Your task to perform on an android device: Open Maps and search for coffee Image 0: 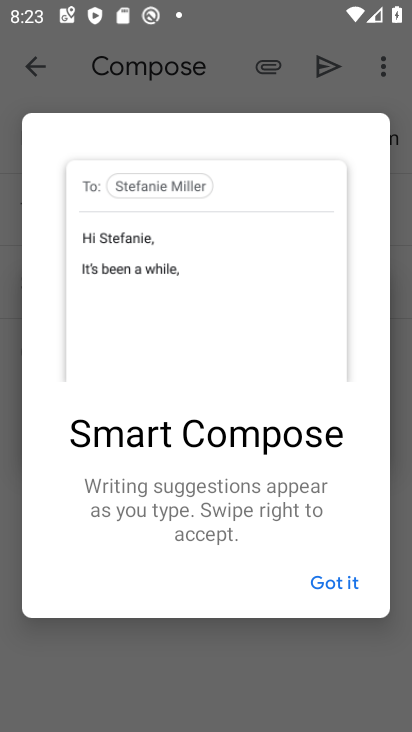
Step 0: press home button
Your task to perform on an android device: Open Maps and search for coffee Image 1: 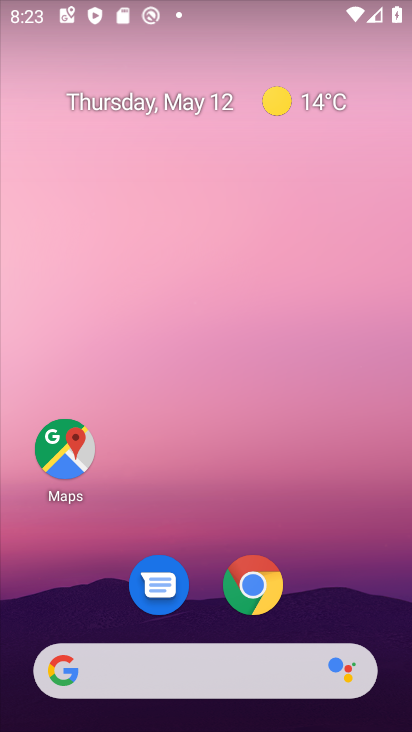
Step 1: click (64, 440)
Your task to perform on an android device: Open Maps and search for coffee Image 2: 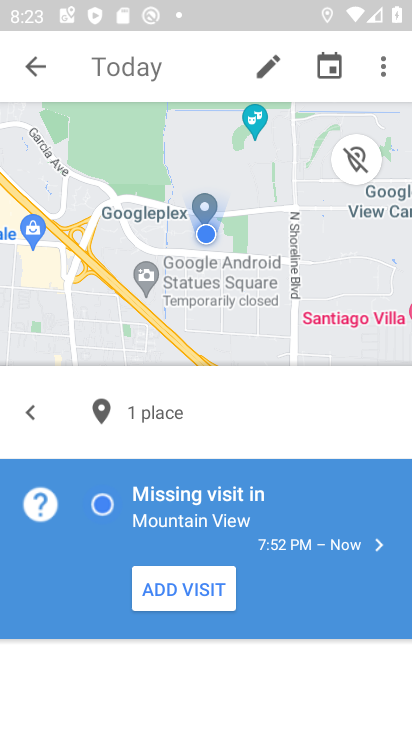
Step 2: click (157, 60)
Your task to perform on an android device: Open Maps and search for coffee Image 3: 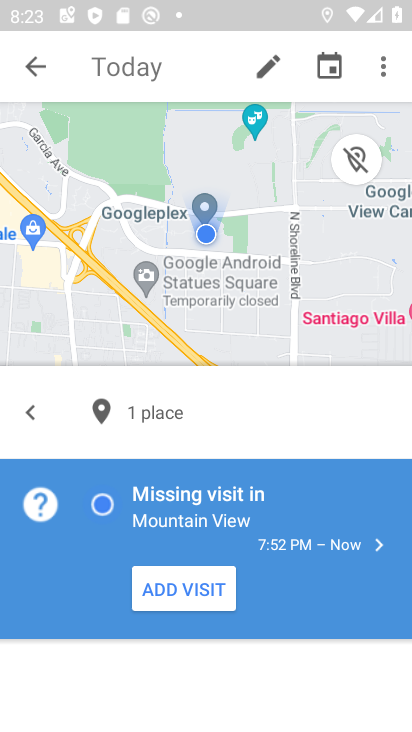
Step 3: click (33, 58)
Your task to perform on an android device: Open Maps and search for coffee Image 4: 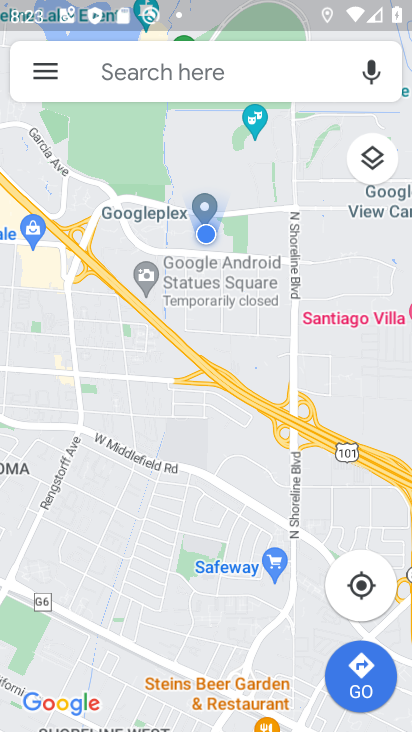
Step 4: click (119, 70)
Your task to perform on an android device: Open Maps and search for coffee Image 5: 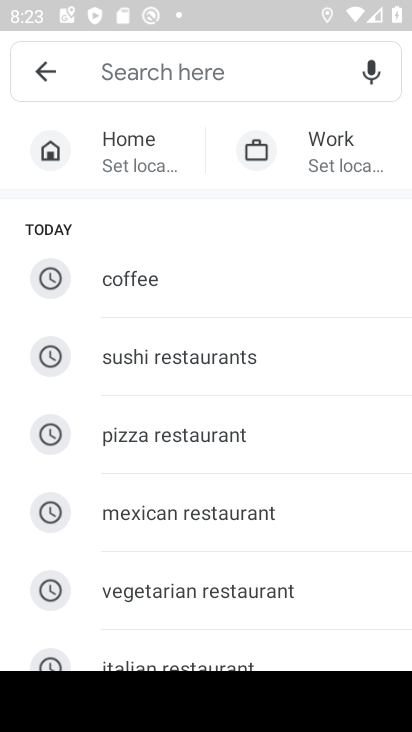
Step 5: click (143, 277)
Your task to perform on an android device: Open Maps and search for coffee Image 6: 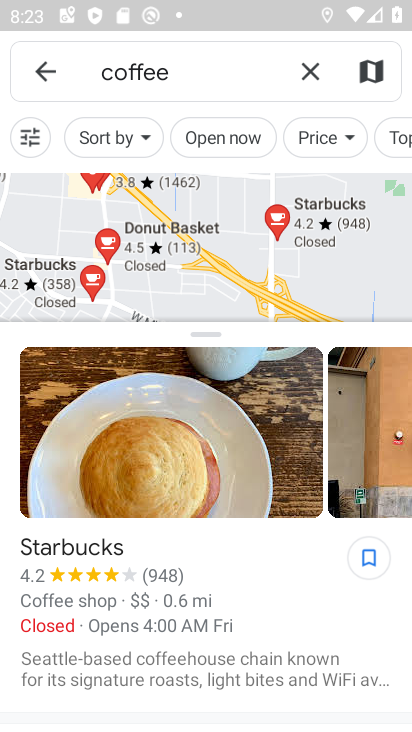
Step 6: task complete